Your task to perform on an android device: turn notification dots on Image 0: 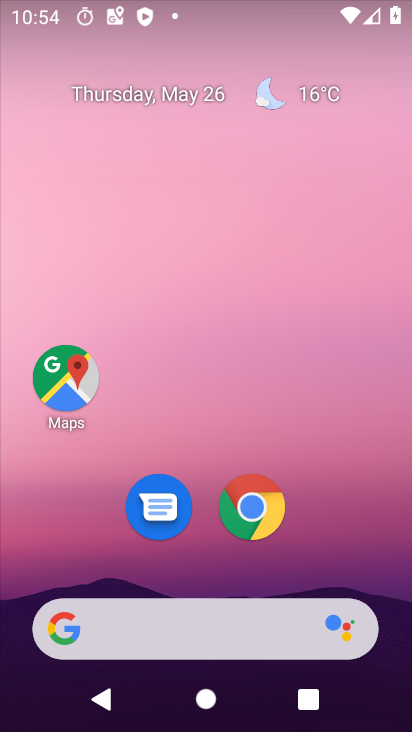
Step 0: drag from (184, 615) to (188, 245)
Your task to perform on an android device: turn notification dots on Image 1: 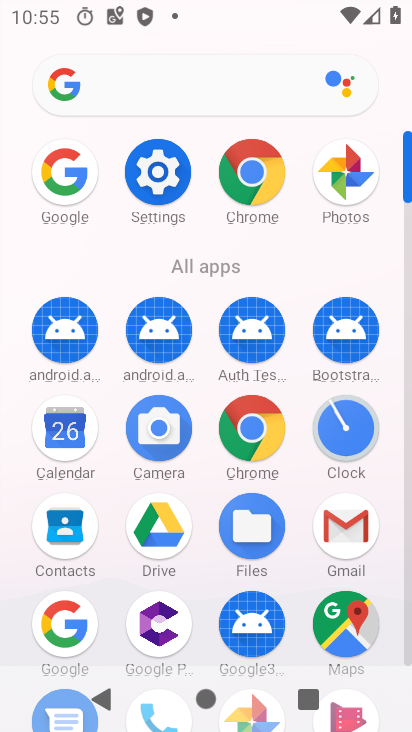
Step 1: click (159, 171)
Your task to perform on an android device: turn notification dots on Image 2: 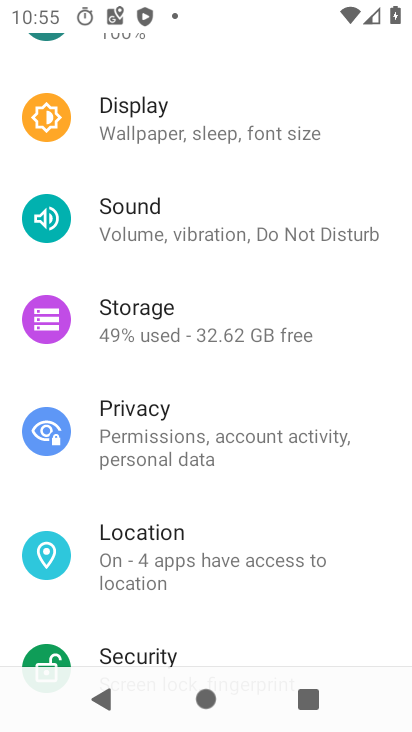
Step 2: drag from (207, 155) to (209, 611)
Your task to perform on an android device: turn notification dots on Image 3: 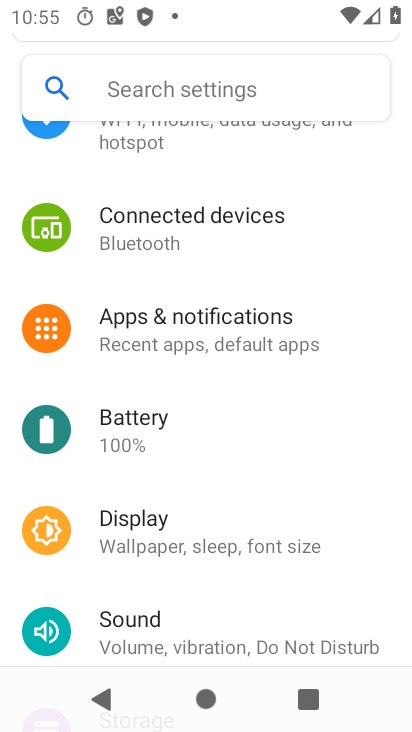
Step 3: click (216, 317)
Your task to perform on an android device: turn notification dots on Image 4: 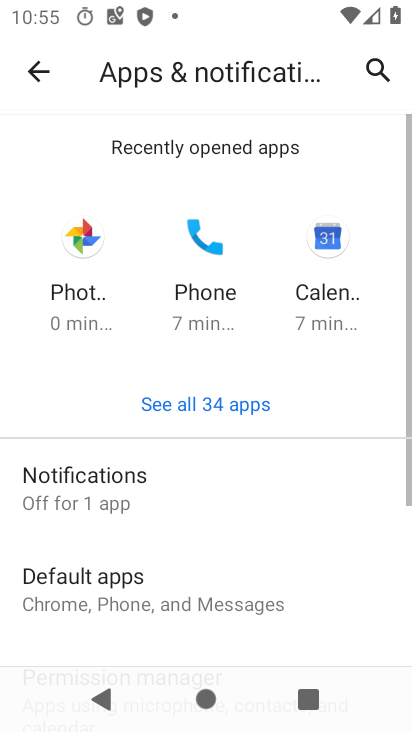
Step 4: drag from (287, 638) to (287, 317)
Your task to perform on an android device: turn notification dots on Image 5: 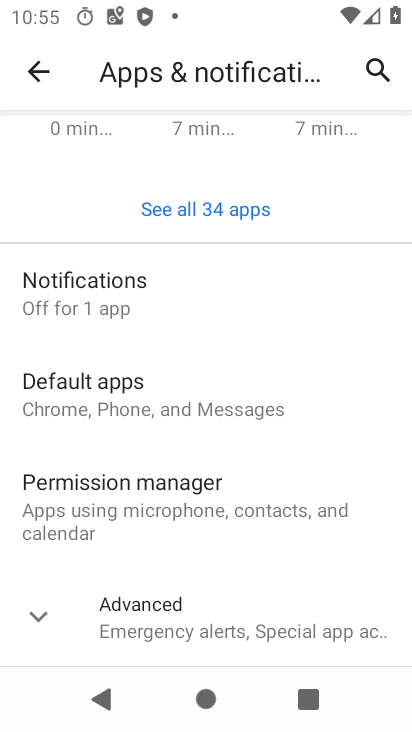
Step 5: click (95, 300)
Your task to perform on an android device: turn notification dots on Image 6: 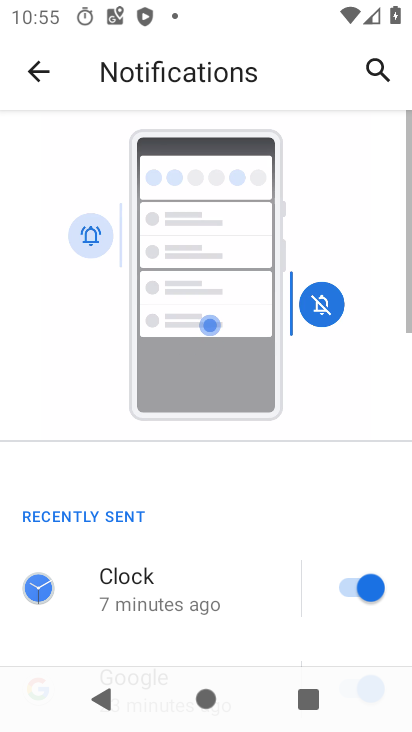
Step 6: drag from (234, 636) to (257, 374)
Your task to perform on an android device: turn notification dots on Image 7: 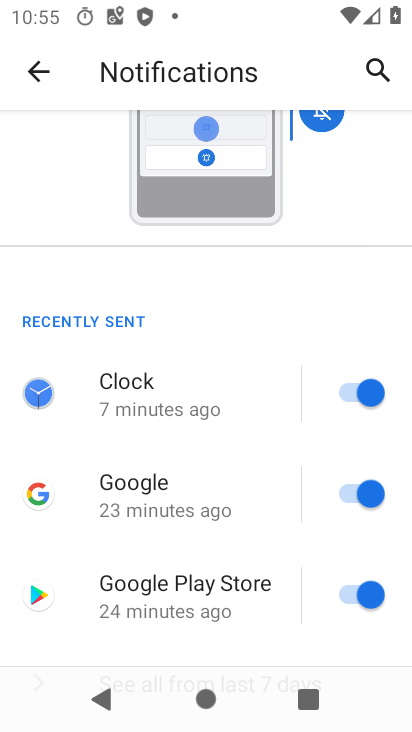
Step 7: drag from (268, 637) to (305, 342)
Your task to perform on an android device: turn notification dots on Image 8: 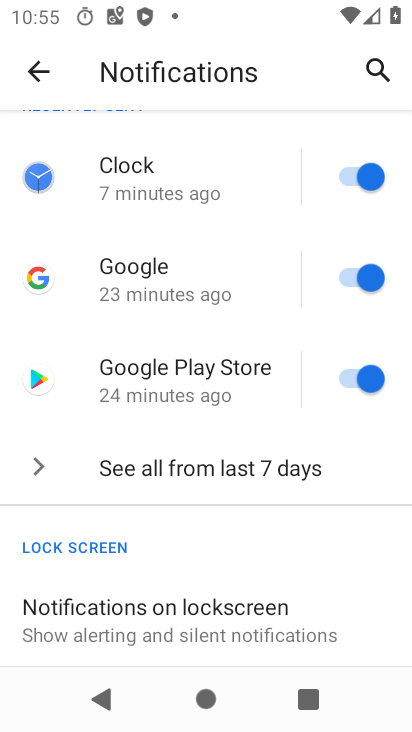
Step 8: drag from (282, 632) to (287, 395)
Your task to perform on an android device: turn notification dots on Image 9: 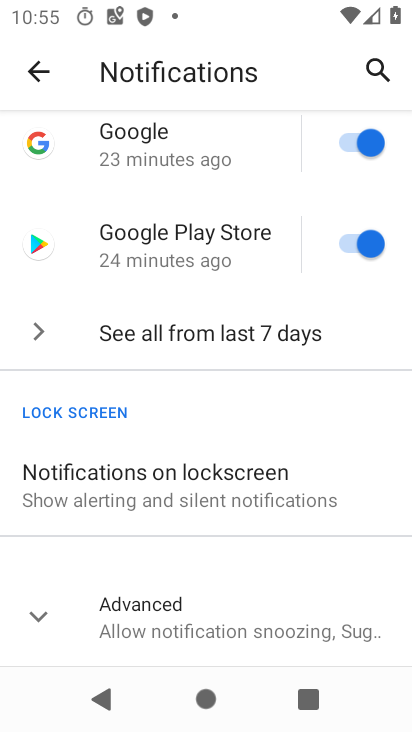
Step 9: click (173, 636)
Your task to perform on an android device: turn notification dots on Image 10: 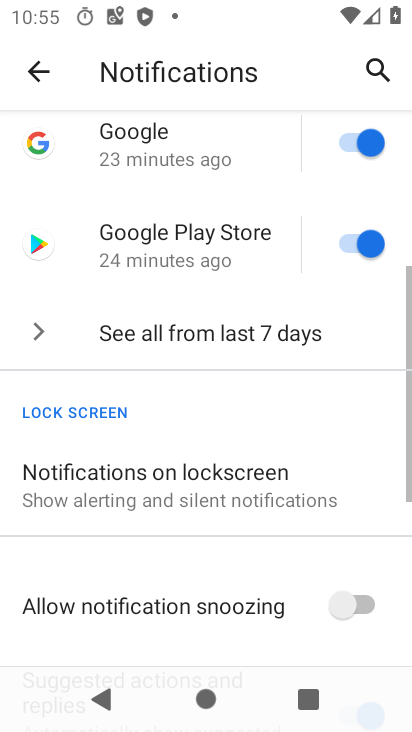
Step 10: task complete